Your task to perform on an android device: stop showing notifications on the lock screen Image 0: 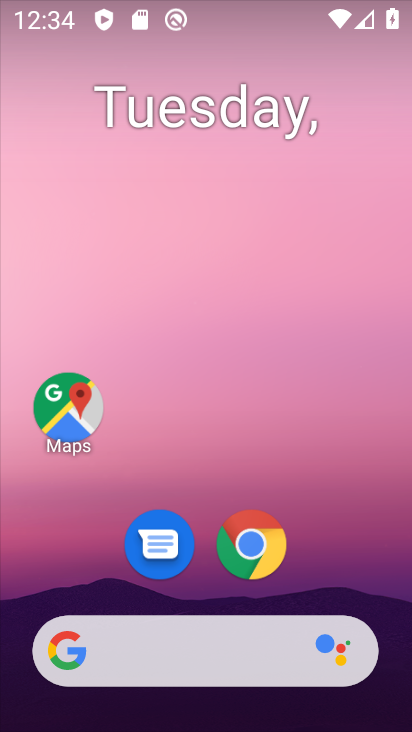
Step 0: drag from (396, 638) to (331, 94)
Your task to perform on an android device: stop showing notifications on the lock screen Image 1: 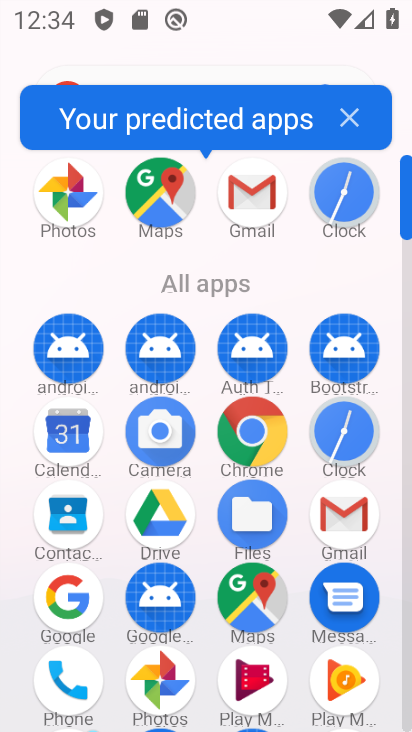
Step 1: click (410, 680)
Your task to perform on an android device: stop showing notifications on the lock screen Image 2: 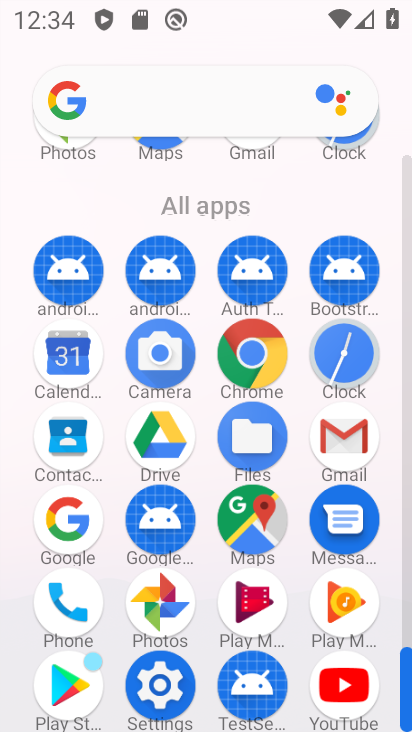
Step 2: click (164, 688)
Your task to perform on an android device: stop showing notifications on the lock screen Image 3: 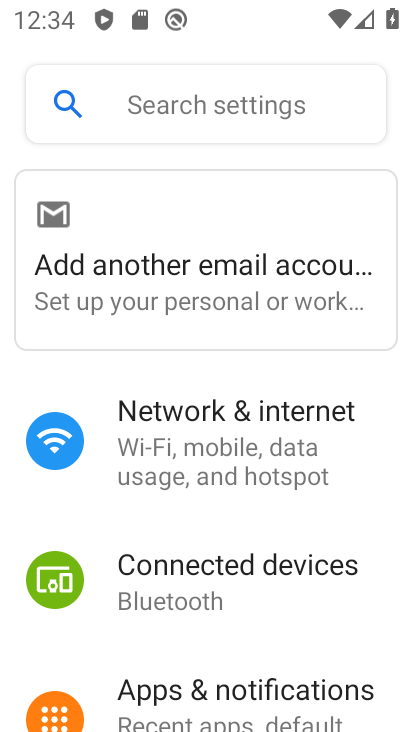
Step 3: drag from (335, 641) to (308, 237)
Your task to perform on an android device: stop showing notifications on the lock screen Image 4: 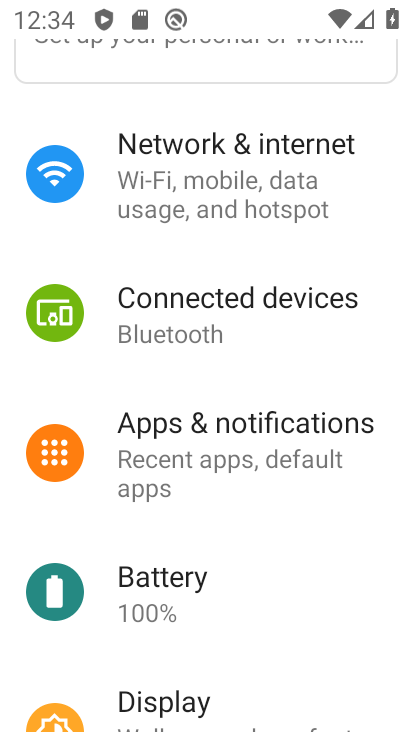
Step 4: click (190, 437)
Your task to perform on an android device: stop showing notifications on the lock screen Image 5: 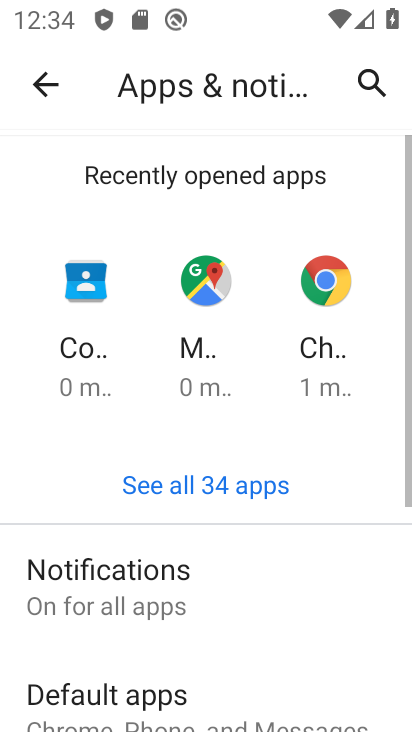
Step 5: drag from (350, 639) to (317, 279)
Your task to perform on an android device: stop showing notifications on the lock screen Image 6: 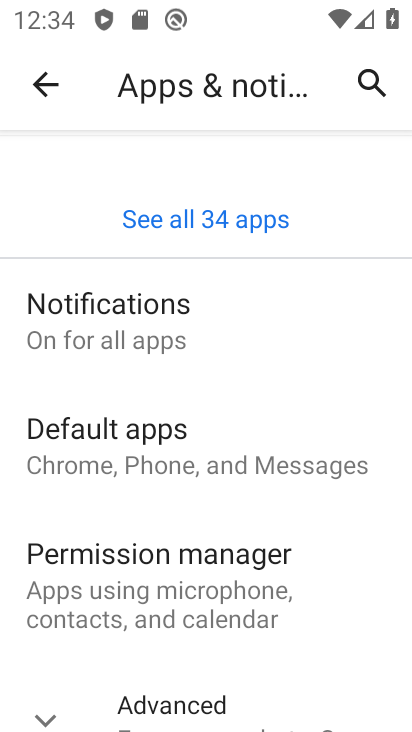
Step 6: click (66, 308)
Your task to perform on an android device: stop showing notifications on the lock screen Image 7: 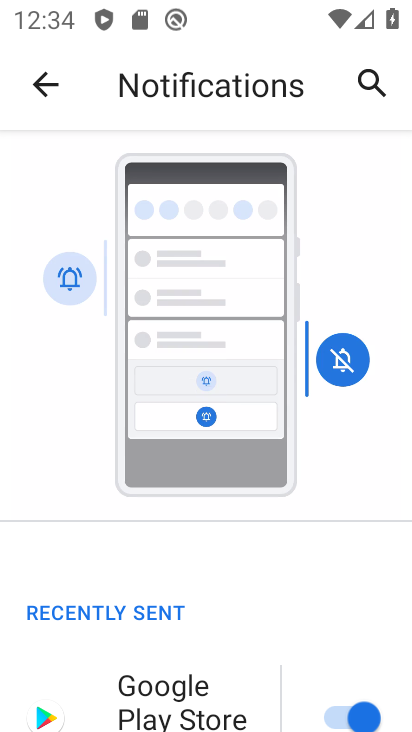
Step 7: drag from (296, 650) to (227, 68)
Your task to perform on an android device: stop showing notifications on the lock screen Image 8: 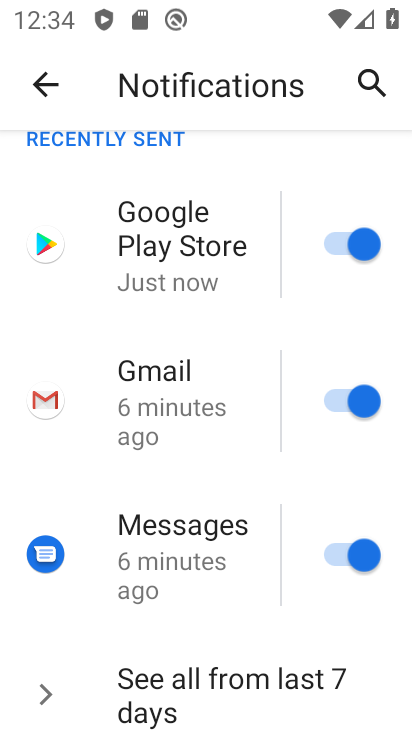
Step 8: drag from (266, 673) to (273, 230)
Your task to perform on an android device: stop showing notifications on the lock screen Image 9: 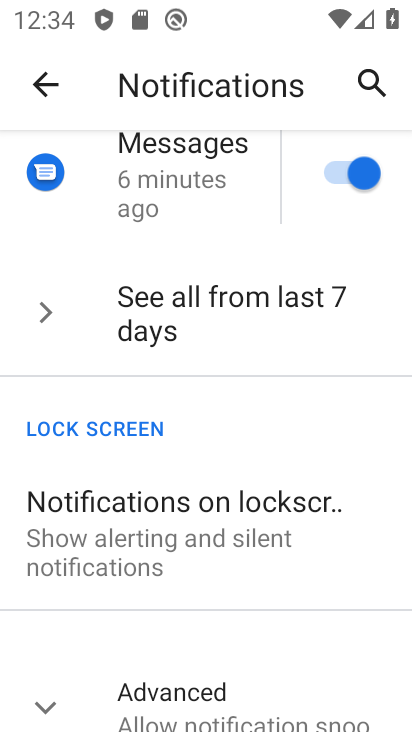
Step 9: click (70, 513)
Your task to perform on an android device: stop showing notifications on the lock screen Image 10: 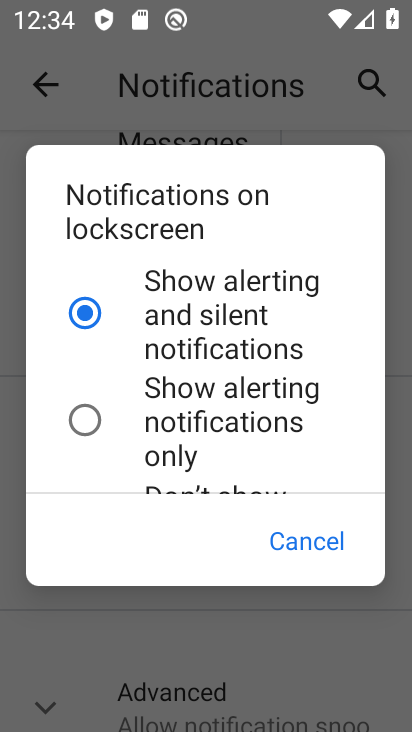
Step 10: drag from (167, 445) to (156, 124)
Your task to perform on an android device: stop showing notifications on the lock screen Image 11: 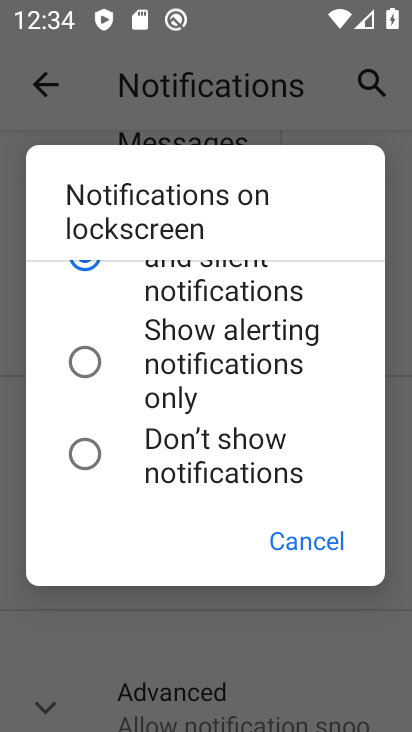
Step 11: click (88, 455)
Your task to perform on an android device: stop showing notifications on the lock screen Image 12: 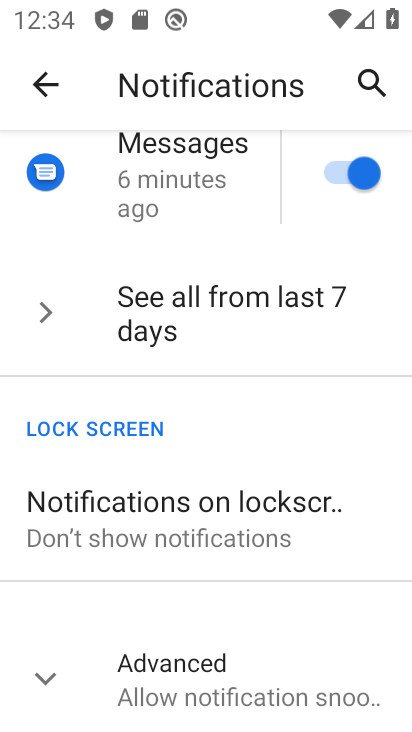
Step 12: task complete